Your task to perform on an android device: install app "Microsoft Authenticator" Image 0: 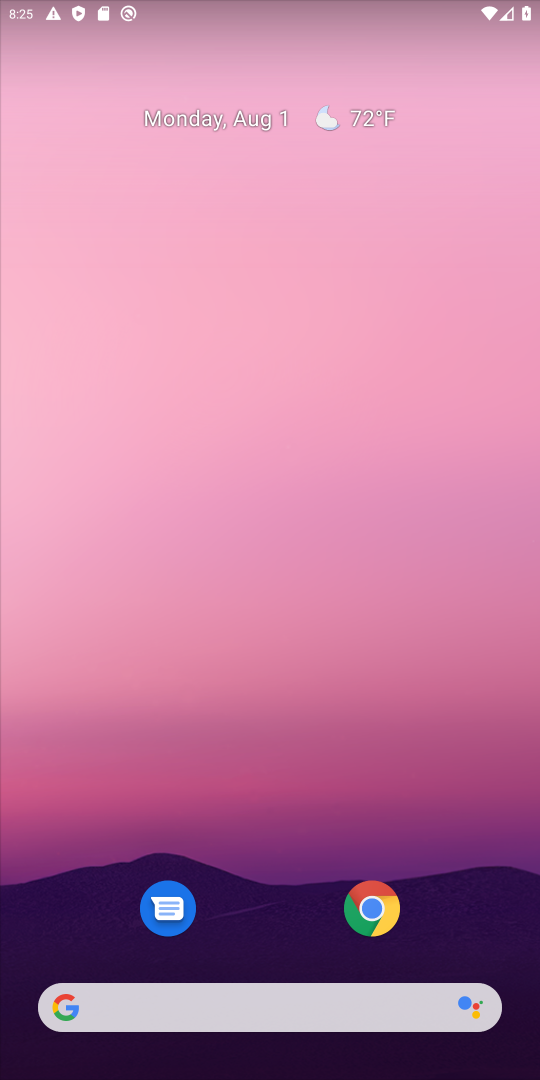
Step 0: drag from (272, 917) to (256, 432)
Your task to perform on an android device: install app "Microsoft Authenticator" Image 1: 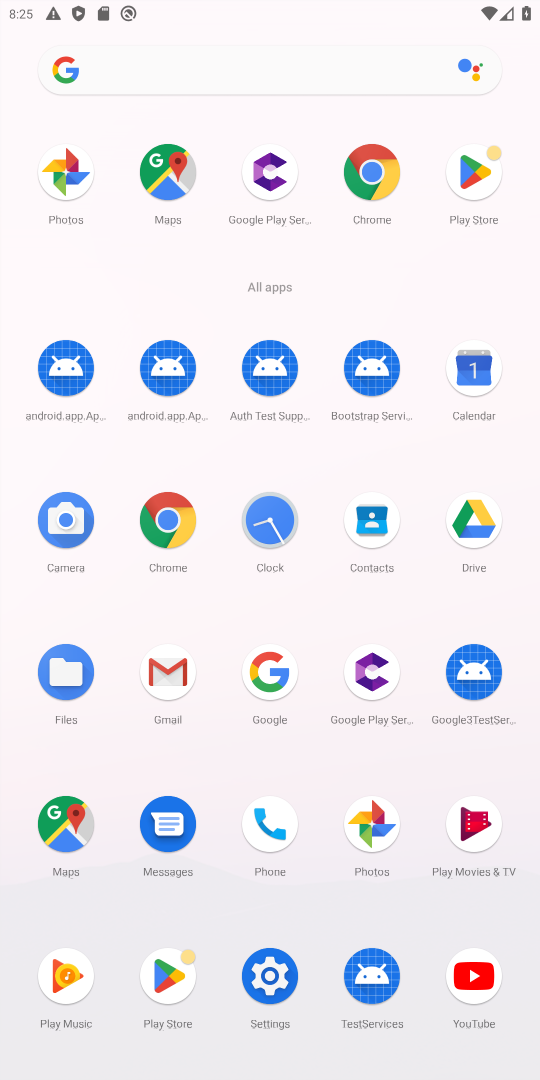
Step 1: click (489, 159)
Your task to perform on an android device: install app "Microsoft Authenticator" Image 2: 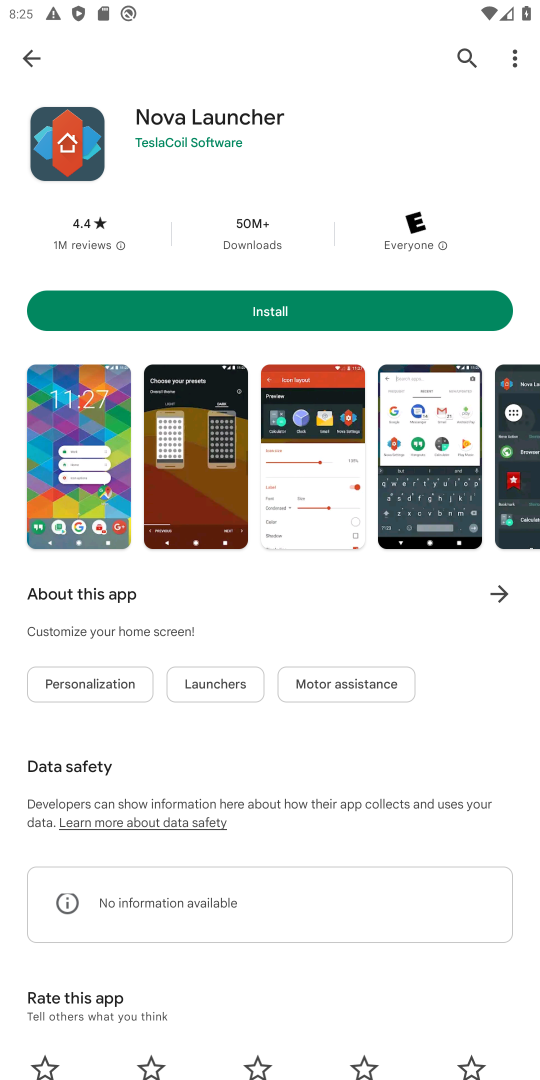
Step 2: click (462, 44)
Your task to perform on an android device: install app "Microsoft Authenticator" Image 3: 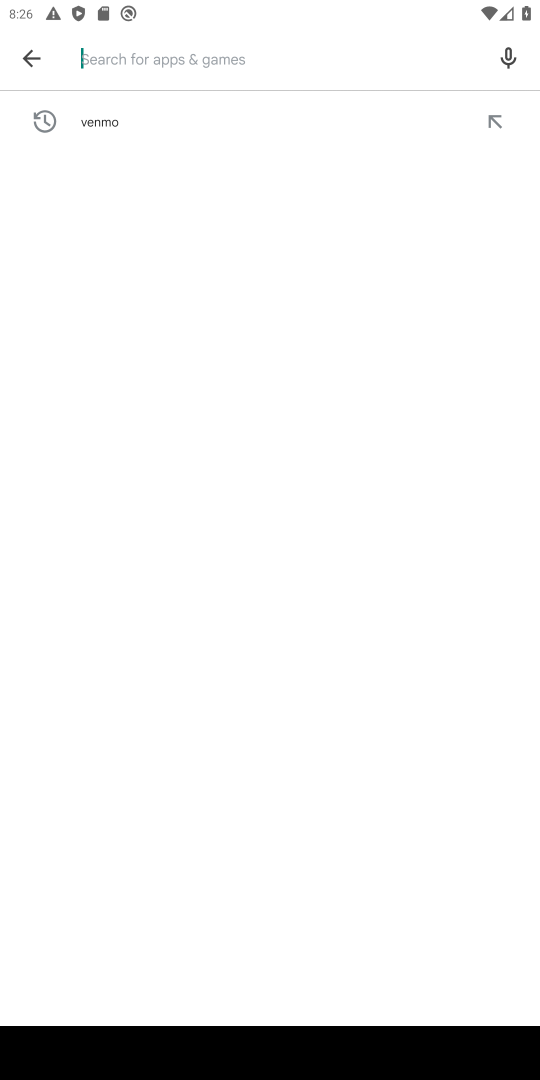
Step 3: type "microsoft authenticator"
Your task to perform on an android device: install app "Microsoft Authenticator" Image 4: 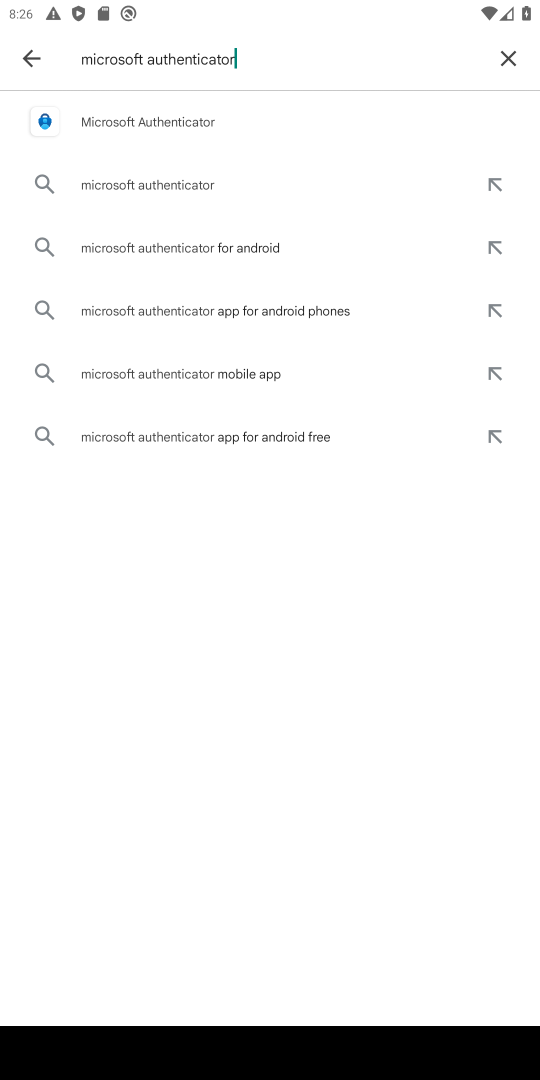
Step 4: click (114, 121)
Your task to perform on an android device: install app "Microsoft Authenticator" Image 5: 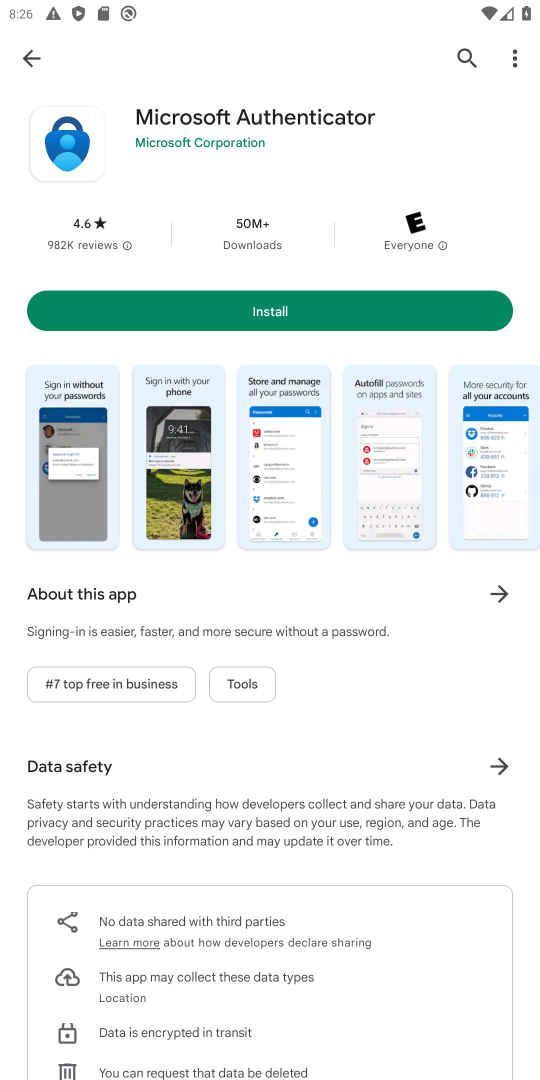
Step 5: click (203, 321)
Your task to perform on an android device: install app "Microsoft Authenticator" Image 6: 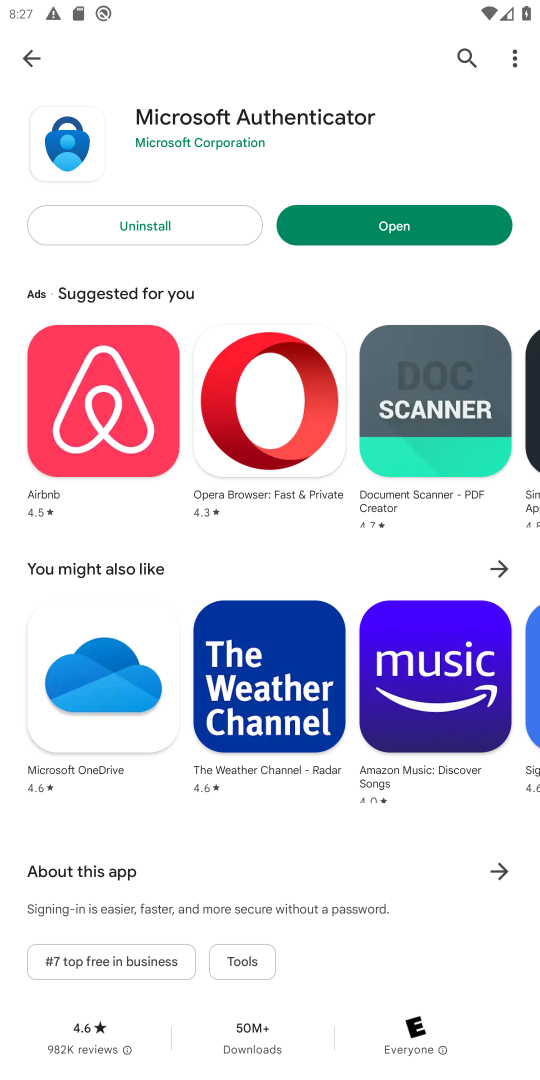
Step 6: task complete